Your task to perform on an android device: check battery use Image 0: 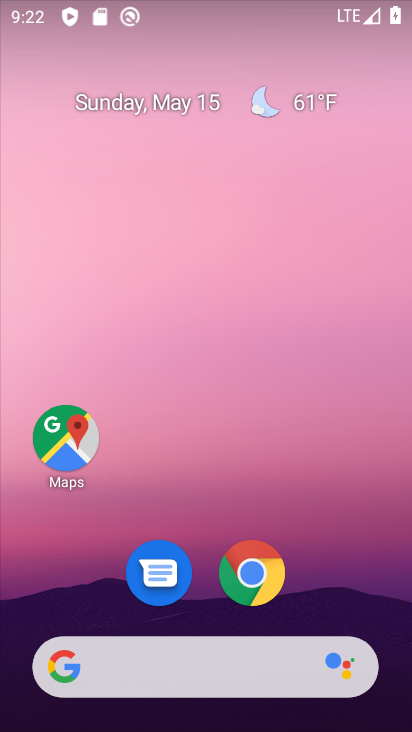
Step 0: drag from (44, 553) to (200, 202)
Your task to perform on an android device: check battery use Image 1: 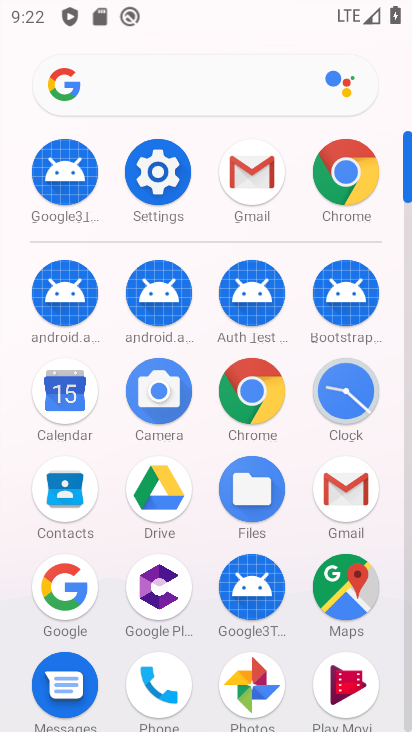
Step 1: click (170, 178)
Your task to perform on an android device: check battery use Image 2: 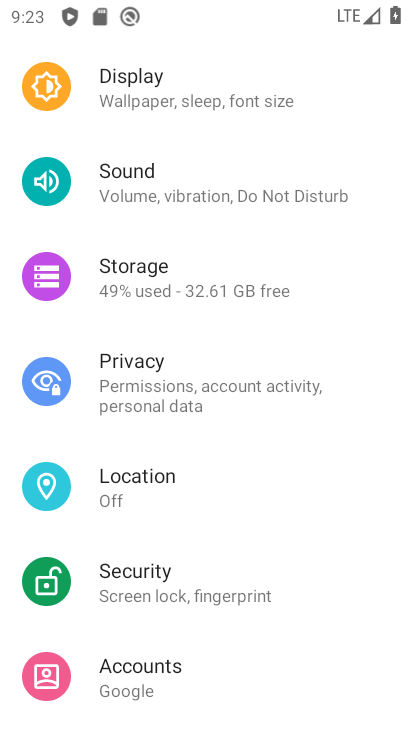
Step 2: task complete